Your task to perform on an android device: open a bookmark in the chrome app Image 0: 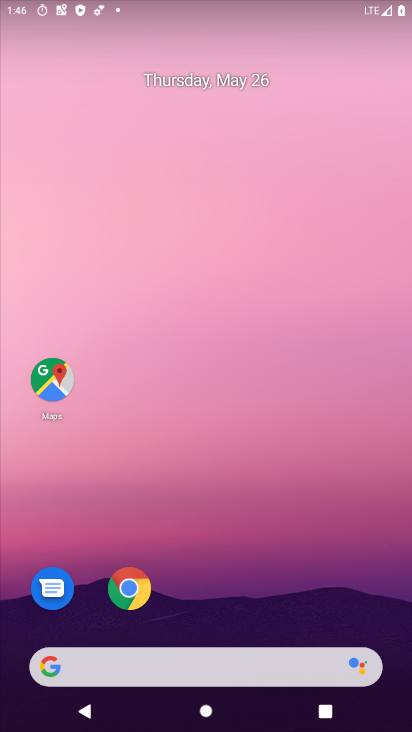
Step 0: click (129, 589)
Your task to perform on an android device: open a bookmark in the chrome app Image 1: 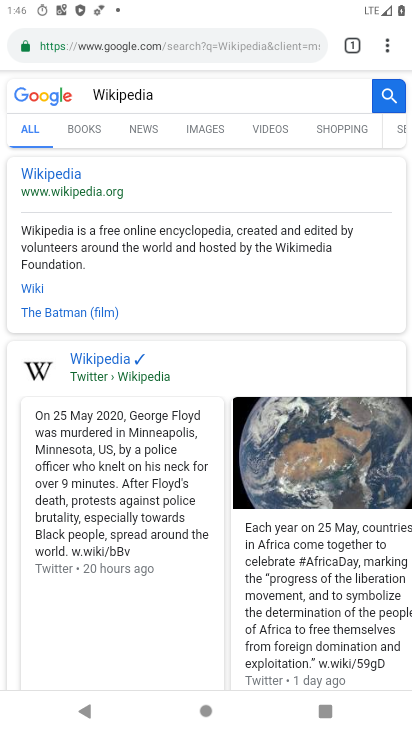
Step 1: click (384, 44)
Your task to perform on an android device: open a bookmark in the chrome app Image 2: 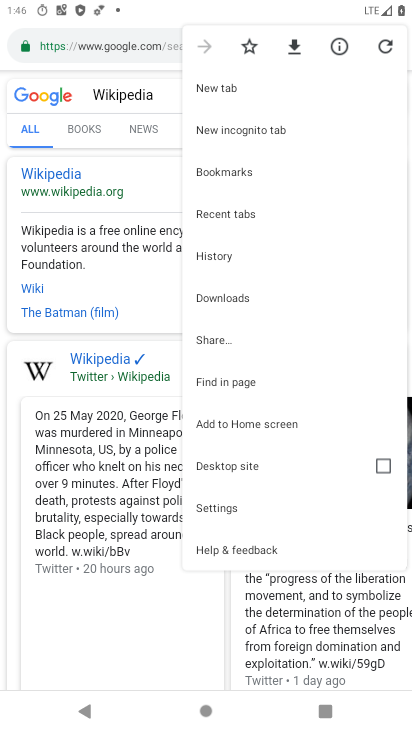
Step 2: click (216, 509)
Your task to perform on an android device: open a bookmark in the chrome app Image 3: 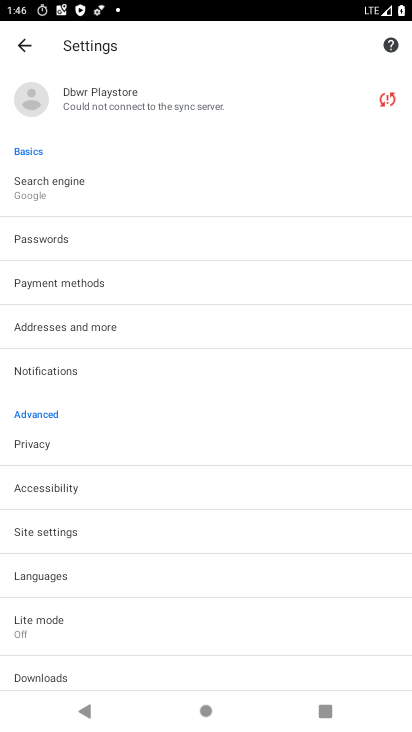
Step 3: press back button
Your task to perform on an android device: open a bookmark in the chrome app Image 4: 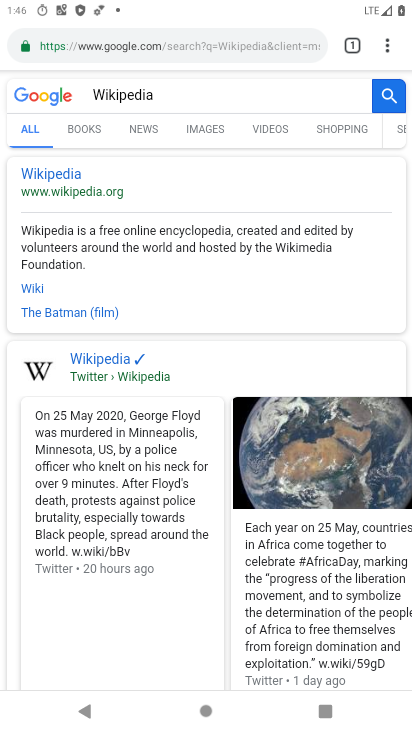
Step 4: click (388, 44)
Your task to perform on an android device: open a bookmark in the chrome app Image 5: 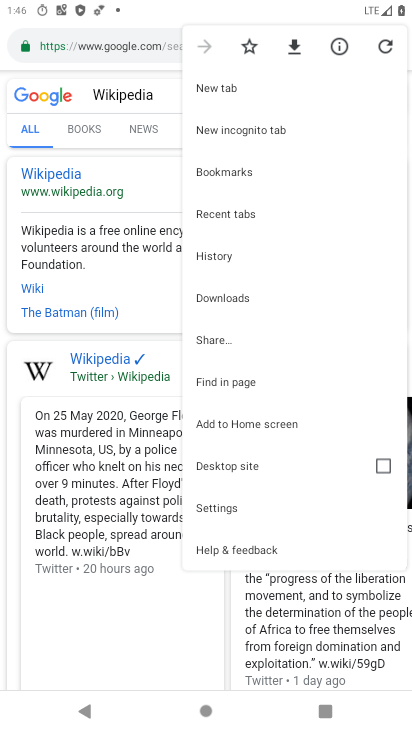
Step 5: click (225, 165)
Your task to perform on an android device: open a bookmark in the chrome app Image 6: 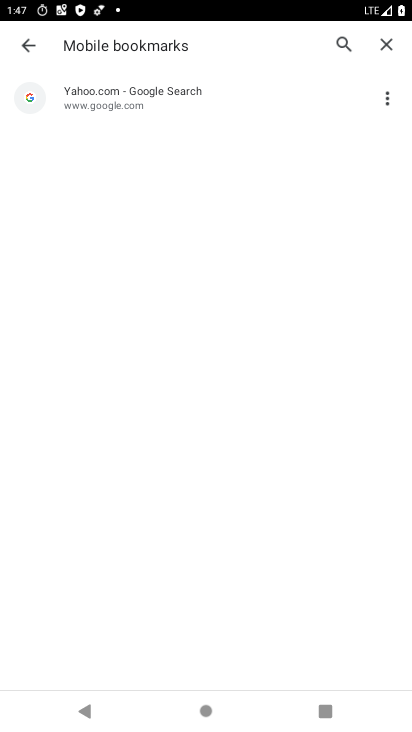
Step 6: click (124, 95)
Your task to perform on an android device: open a bookmark in the chrome app Image 7: 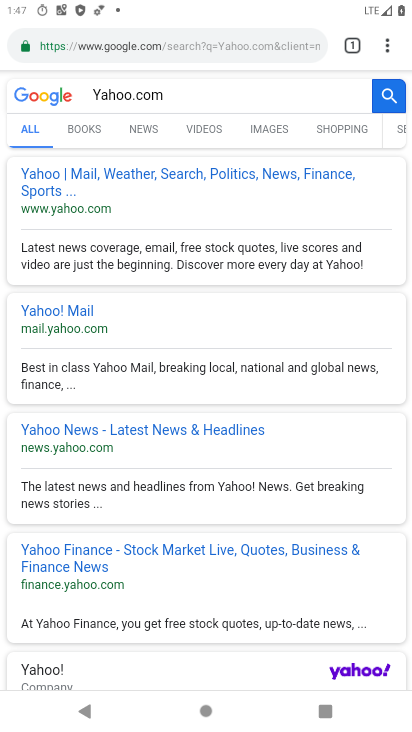
Step 7: task complete